Your task to perform on an android device: uninstall "Duolingo: language lessons" Image 0: 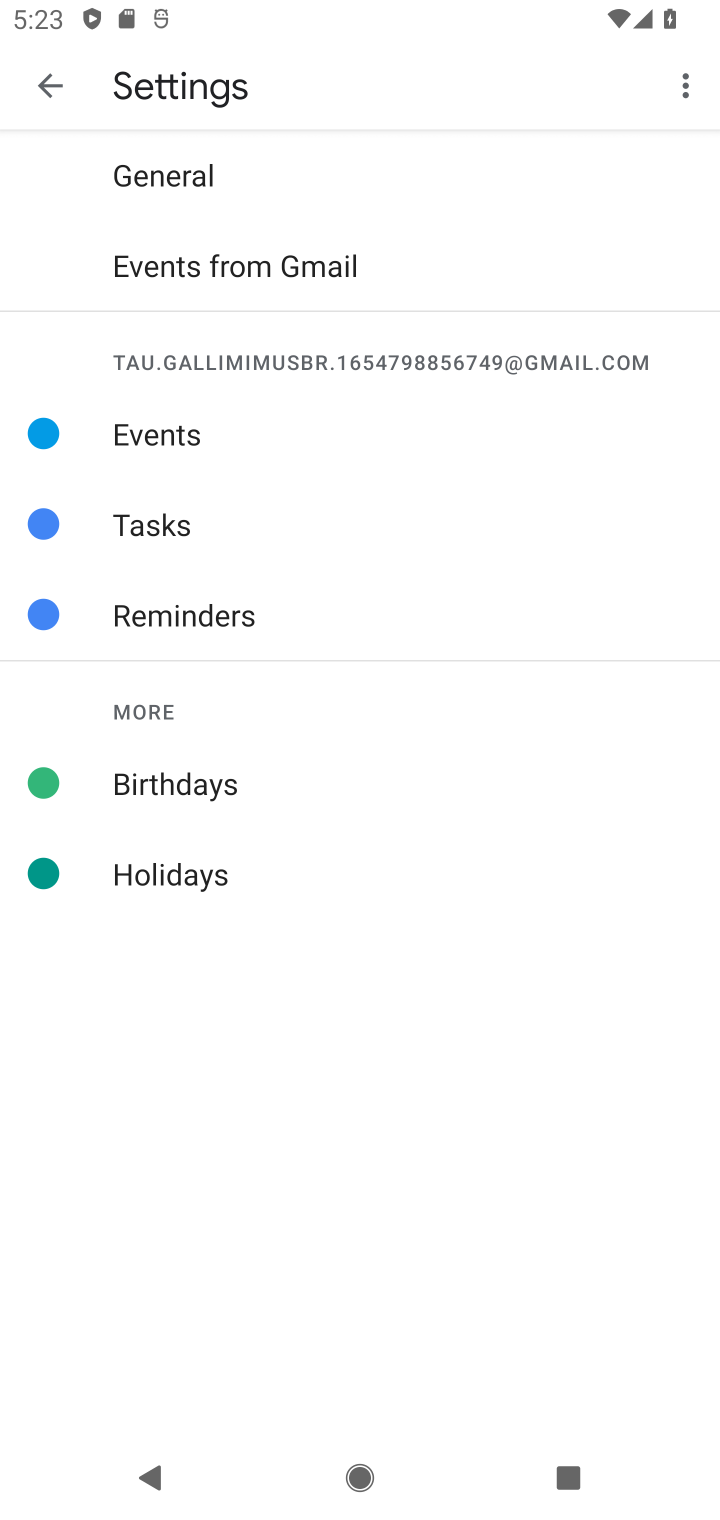
Step 0: press home button
Your task to perform on an android device: uninstall "Duolingo: language lessons" Image 1: 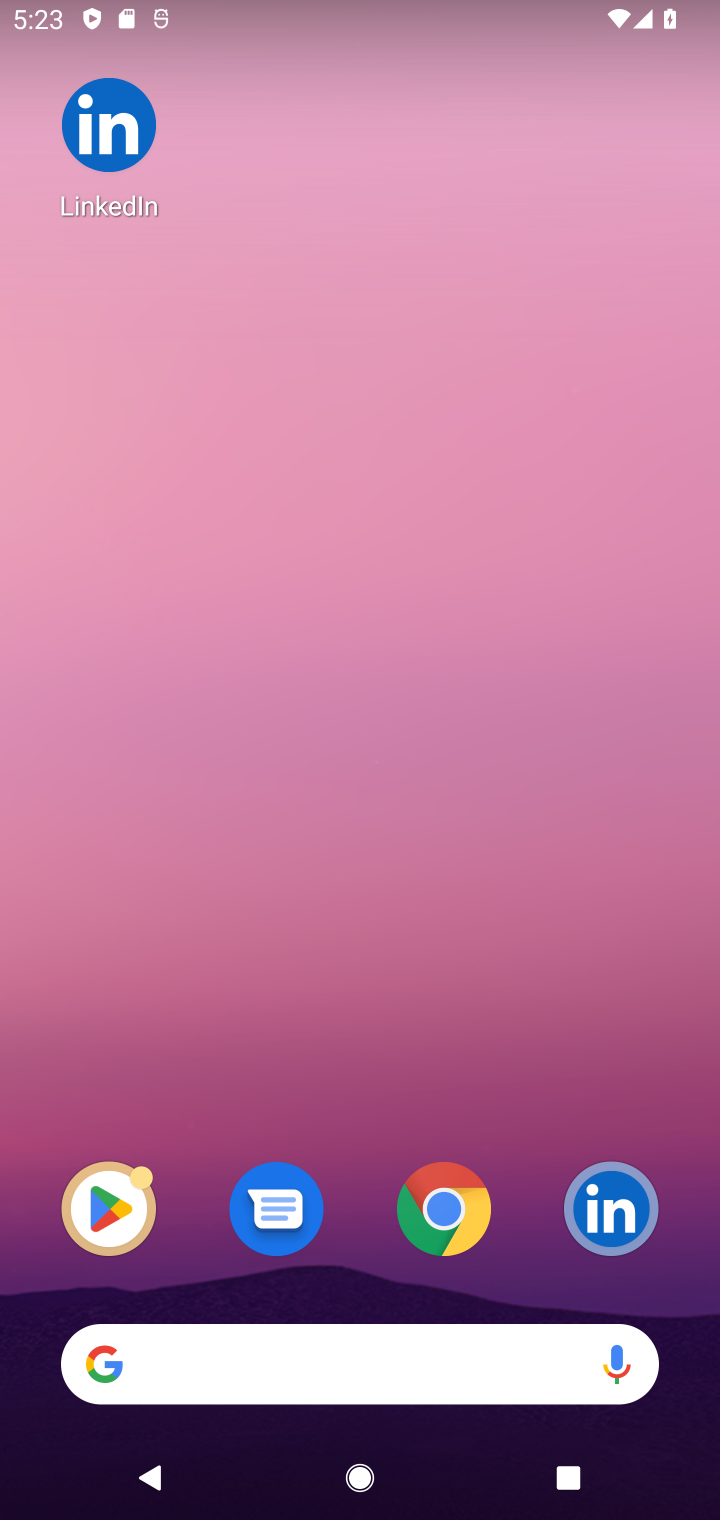
Step 1: click (97, 1227)
Your task to perform on an android device: uninstall "Duolingo: language lessons" Image 2: 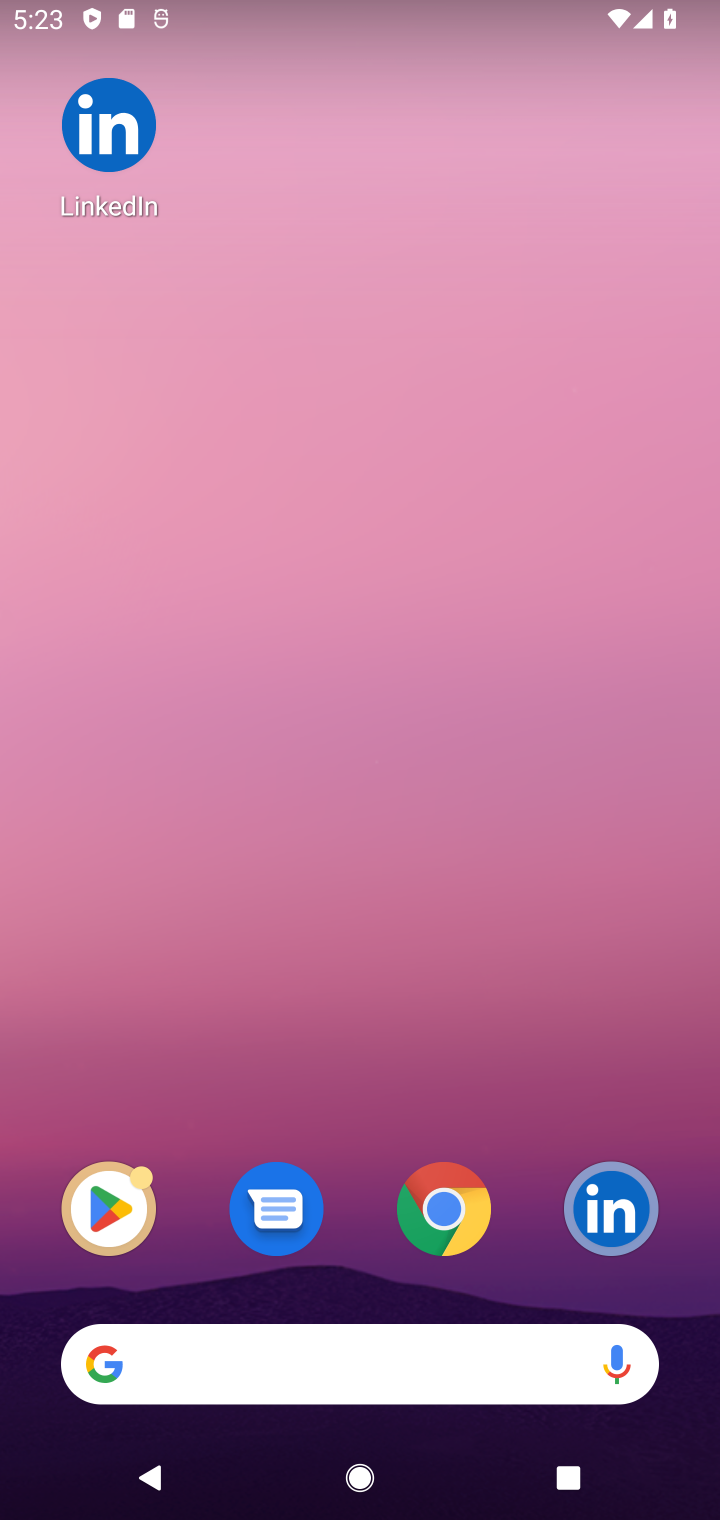
Step 2: press home button
Your task to perform on an android device: uninstall "Duolingo: language lessons" Image 3: 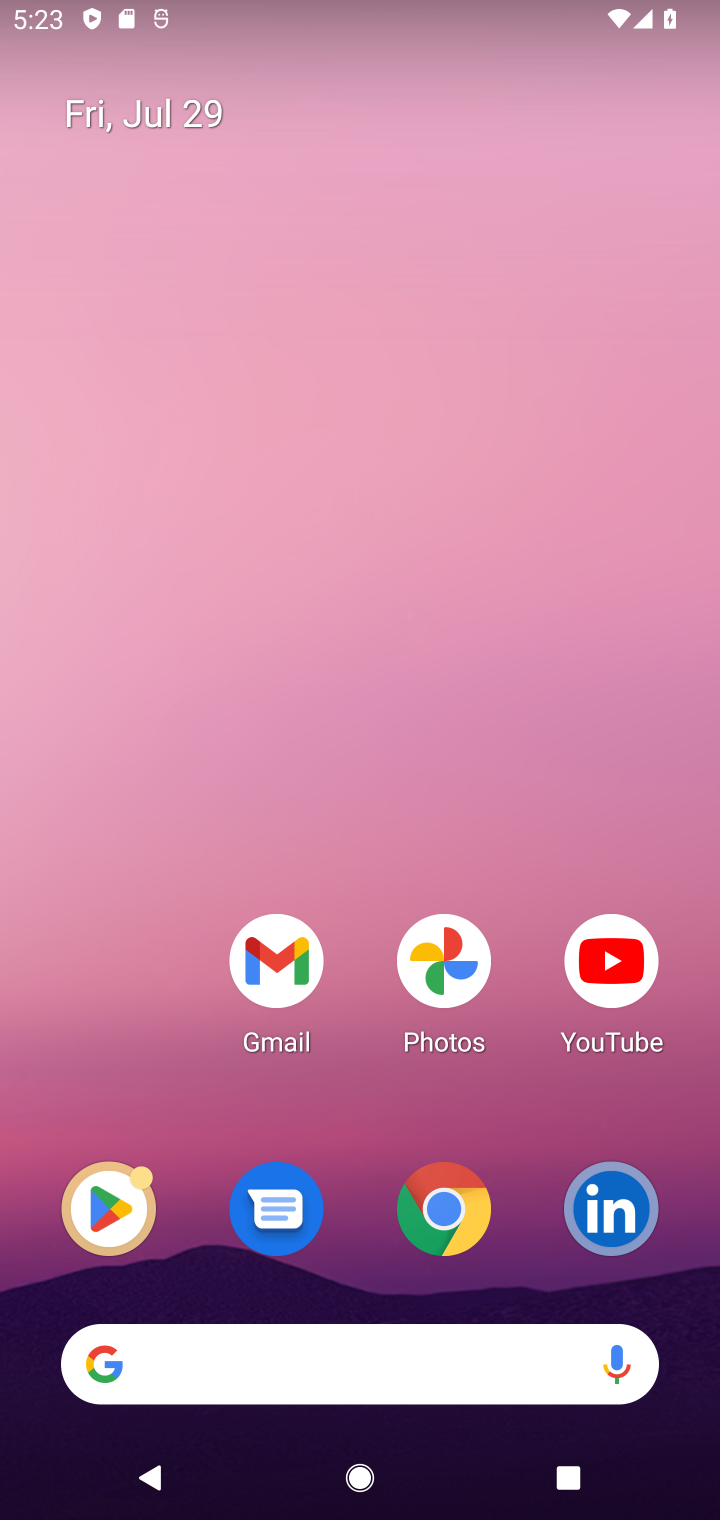
Step 3: click (123, 1215)
Your task to perform on an android device: uninstall "Duolingo: language lessons" Image 4: 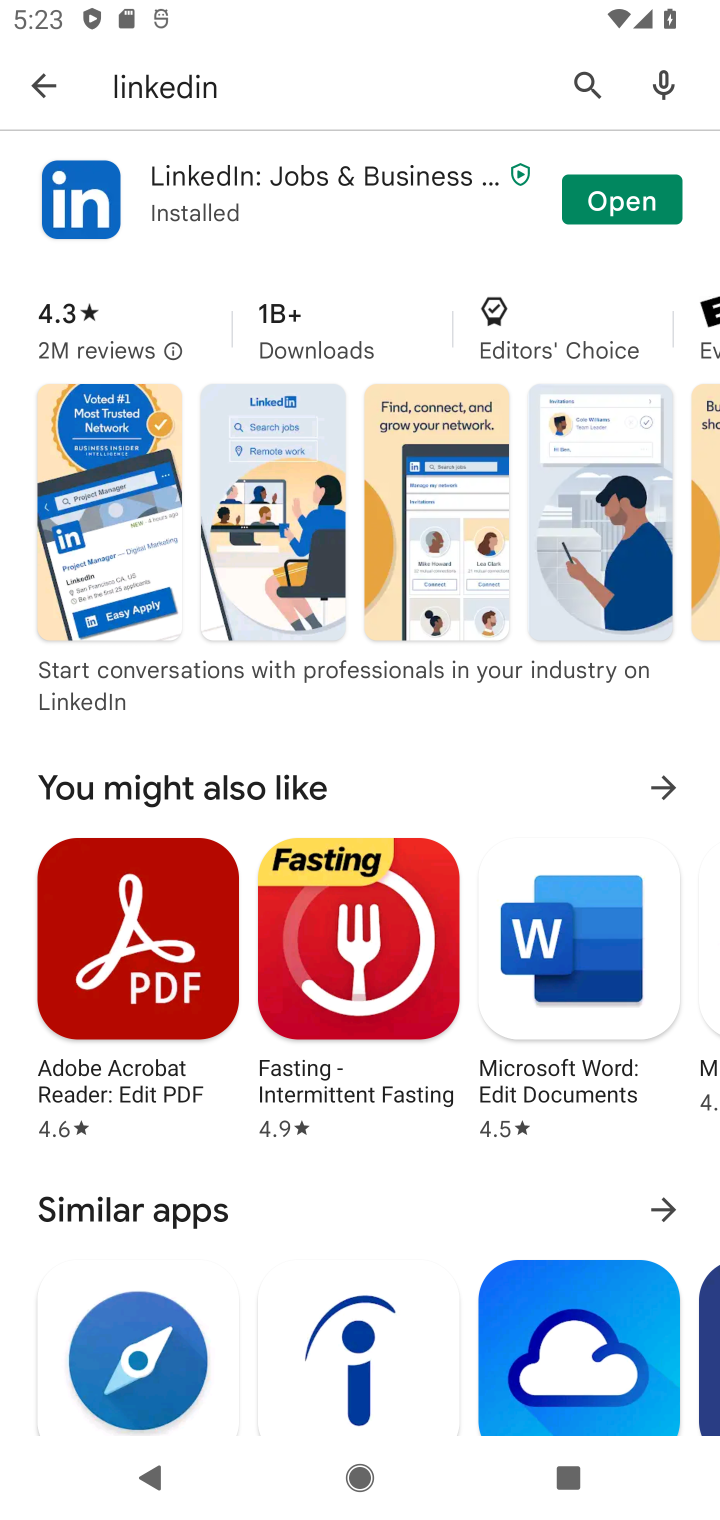
Step 4: click (588, 104)
Your task to perform on an android device: uninstall "Duolingo: language lessons" Image 5: 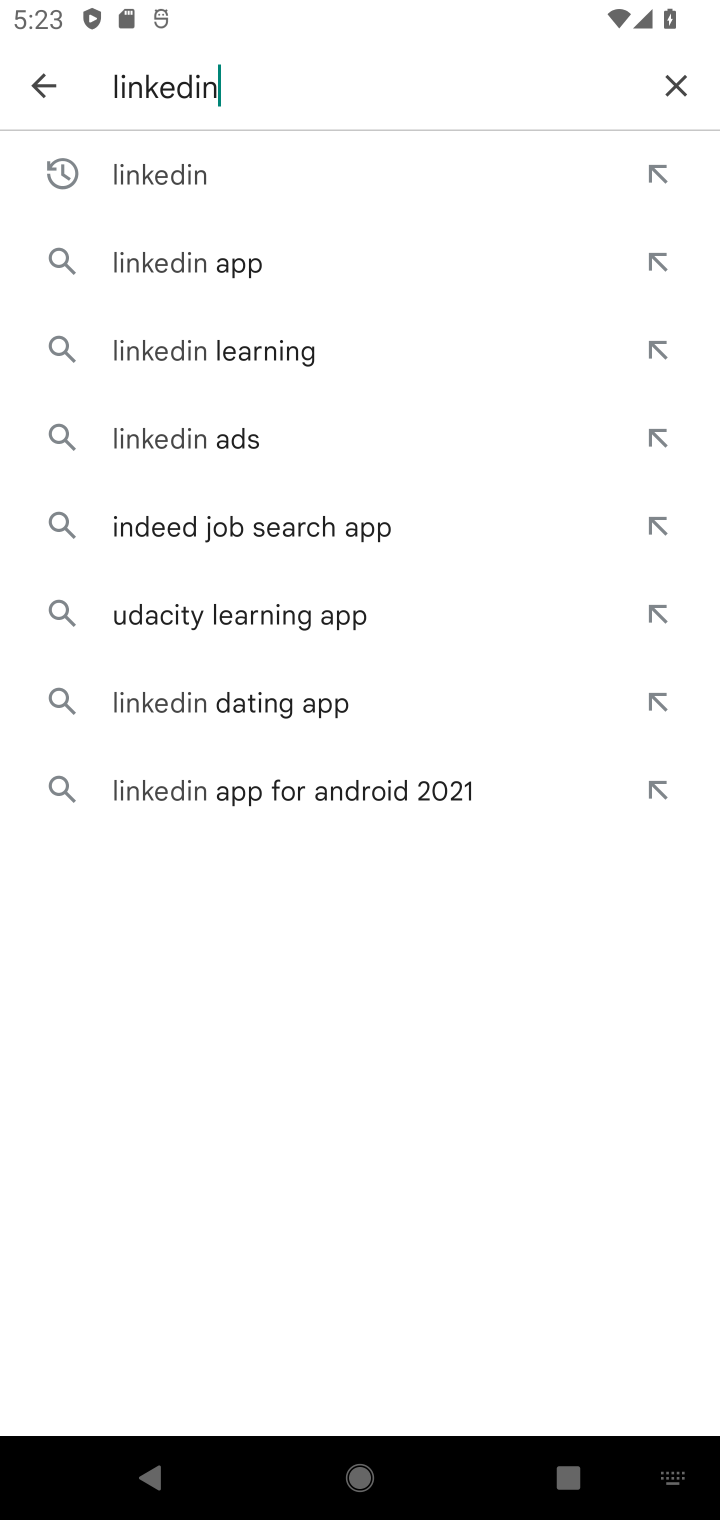
Step 5: click (663, 87)
Your task to perform on an android device: uninstall "Duolingo: language lessons" Image 6: 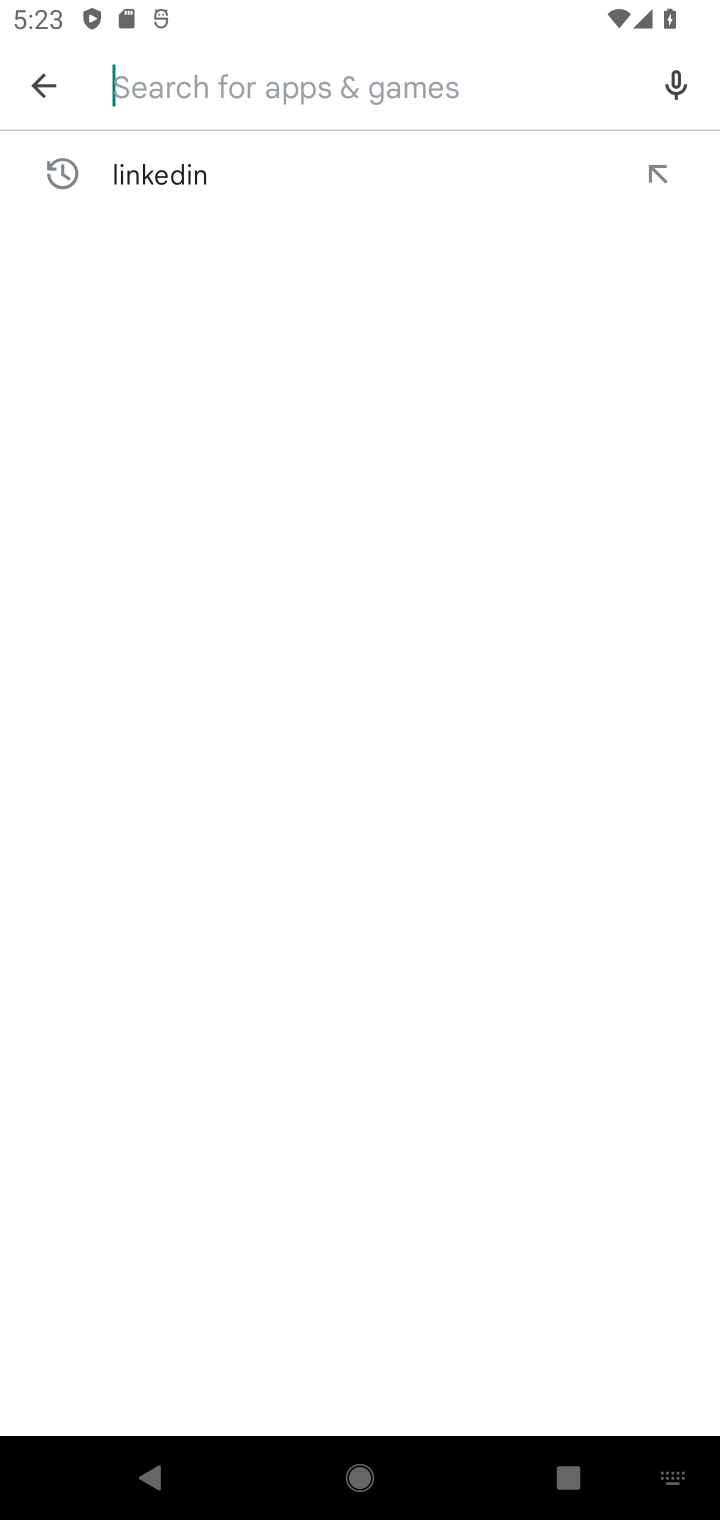
Step 6: click (310, 86)
Your task to perform on an android device: uninstall "Duolingo: language lessons" Image 7: 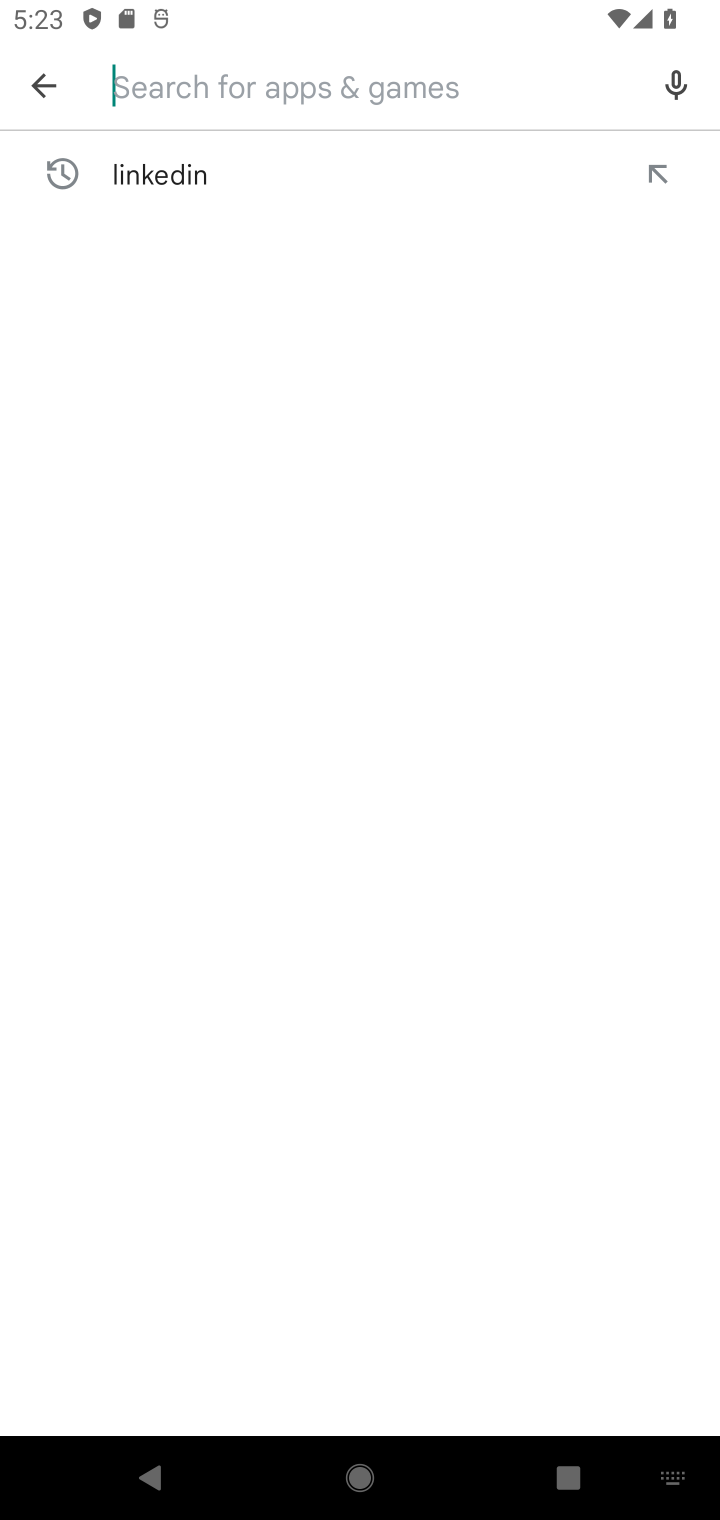
Step 7: type "Duolingo: language lessons"
Your task to perform on an android device: uninstall "Duolingo: language lessons" Image 8: 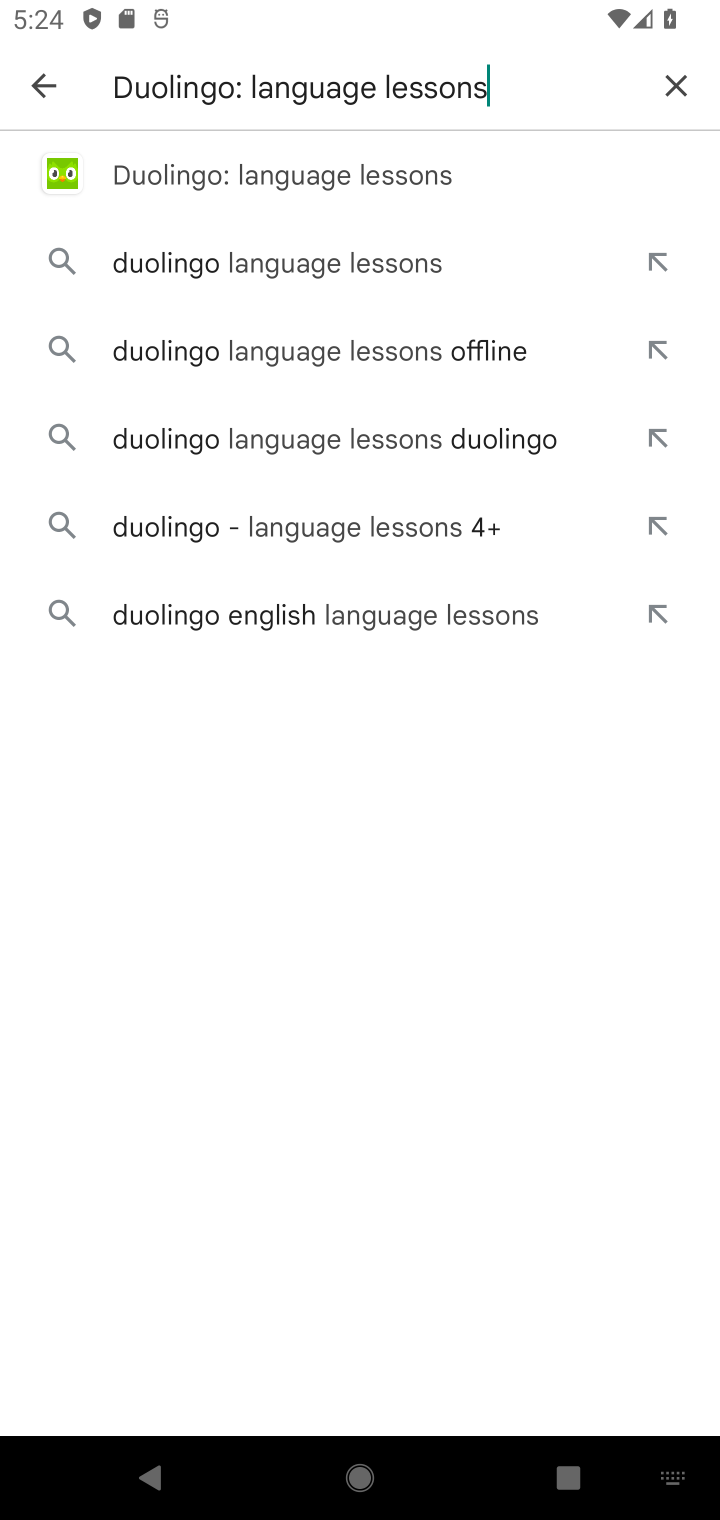
Step 8: click (225, 190)
Your task to perform on an android device: uninstall "Duolingo: language lessons" Image 9: 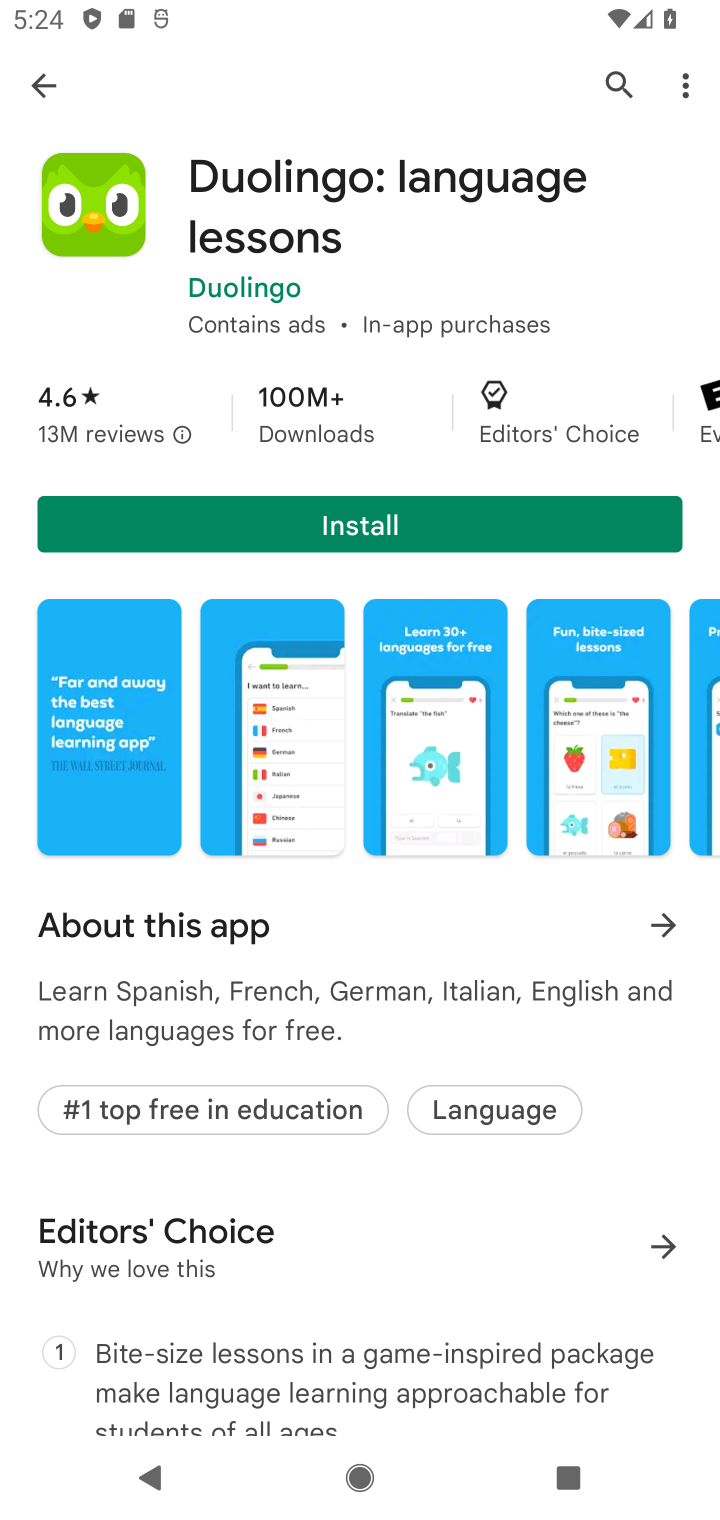
Step 9: task complete